Your task to perform on an android device: snooze an email in the gmail app Image 0: 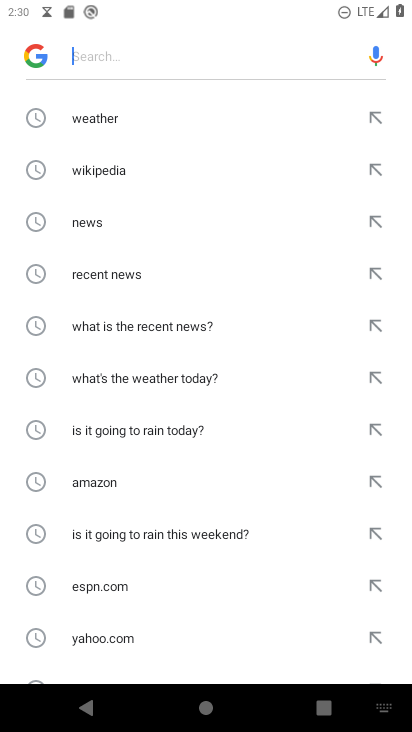
Step 0: press home button
Your task to perform on an android device: snooze an email in the gmail app Image 1: 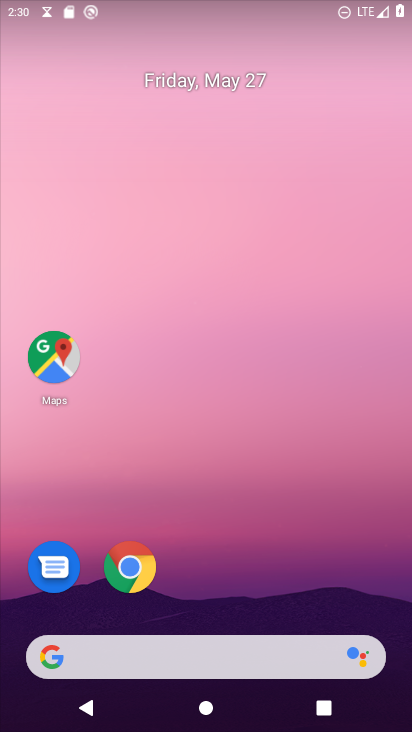
Step 1: drag from (236, 598) to (205, 84)
Your task to perform on an android device: snooze an email in the gmail app Image 2: 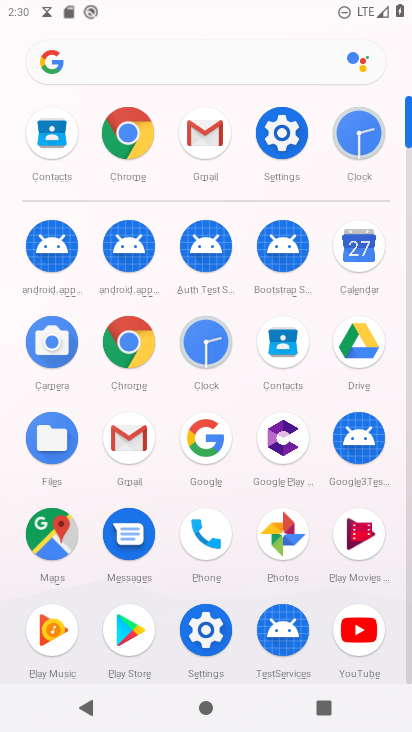
Step 2: click (212, 127)
Your task to perform on an android device: snooze an email in the gmail app Image 3: 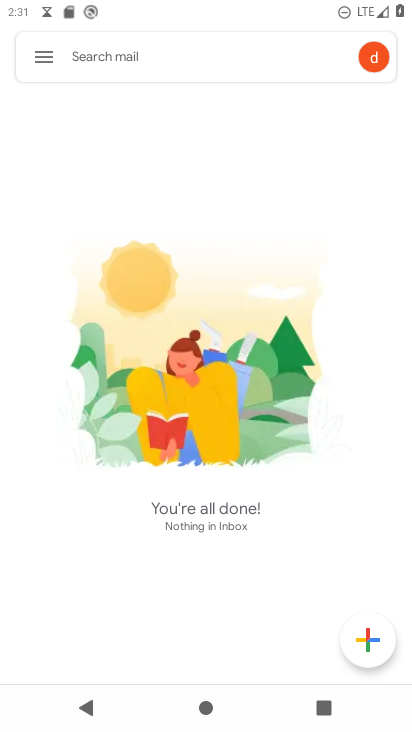
Step 3: task complete